Your task to perform on an android device: toggle show notifications on the lock screen Image 0: 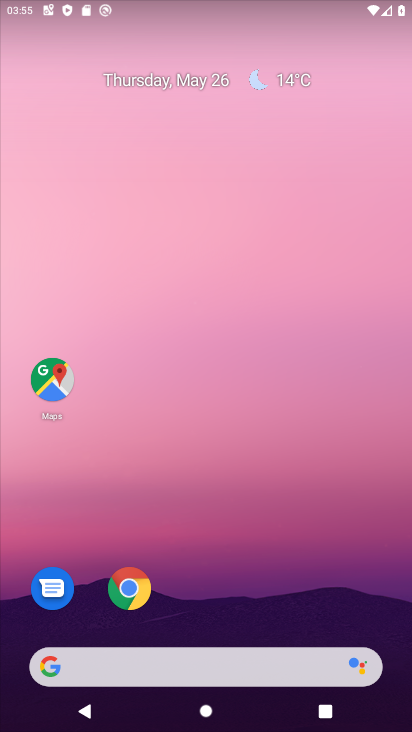
Step 0: drag from (270, 582) to (275, 164)
Your task to perform on an android device: toggle show notifications on the lock screen Image 1: 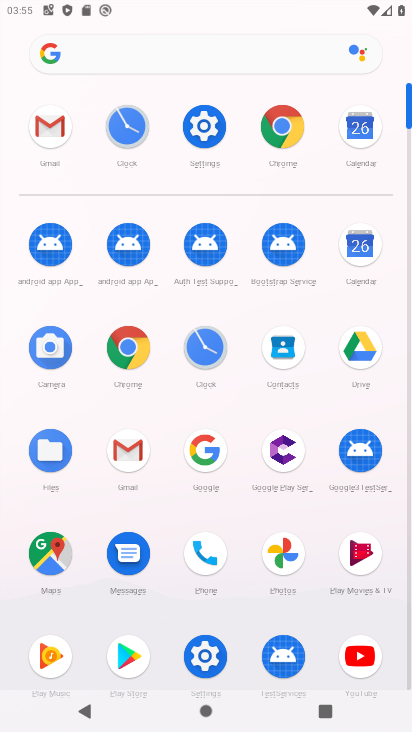
Step 1: click (203, 140)
Your task to perform on an android device: toggle show notifications on the lock screen Image 2: 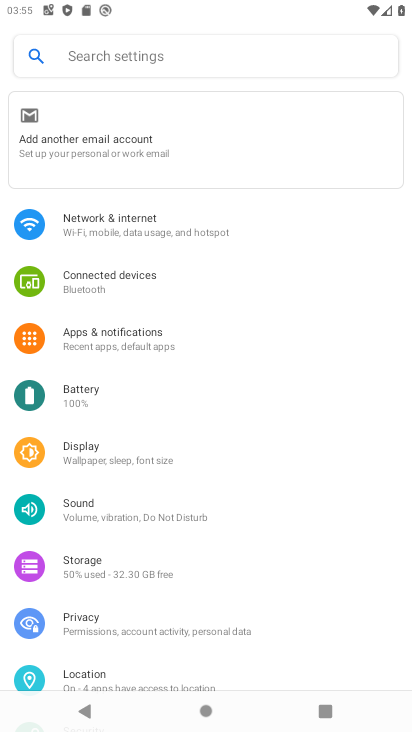
Step 2: drag from (131, 579) to (154, 434)
Your task to perform on an android device: toggle show notifications on the lock screen Image 3: 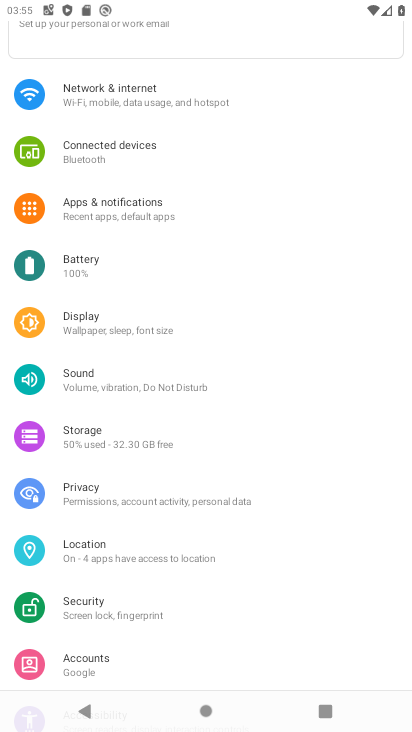
Step 3: drag from (198, 658) to (198, 554)
Your task to perform on an android device: toggle show notifications on the lock screen Image 4: 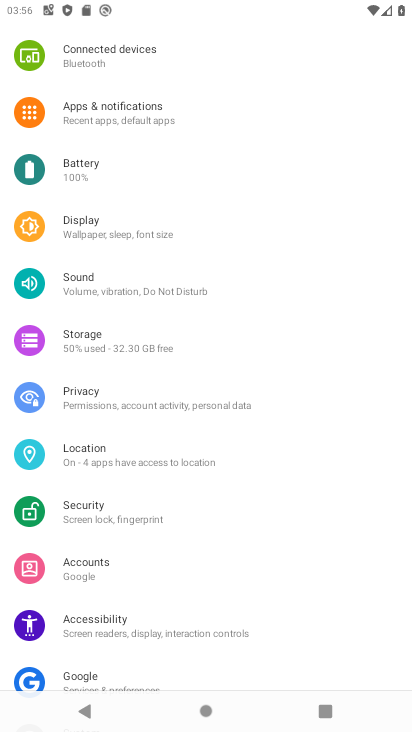
Step 4: click (162, 129)
Your task to perform on an android device: toggle show notifications on the lock screen Image 5: 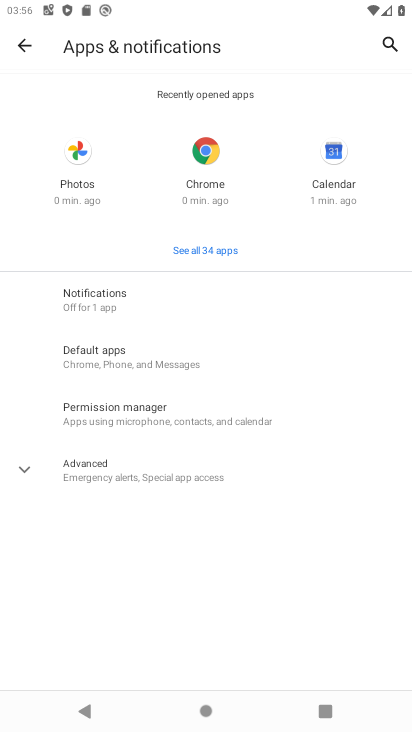
Step 5: drag from (123, 469) to (127, 359)
Your task to perform on an android device: toggle show notifications on the lock screen Image 6: 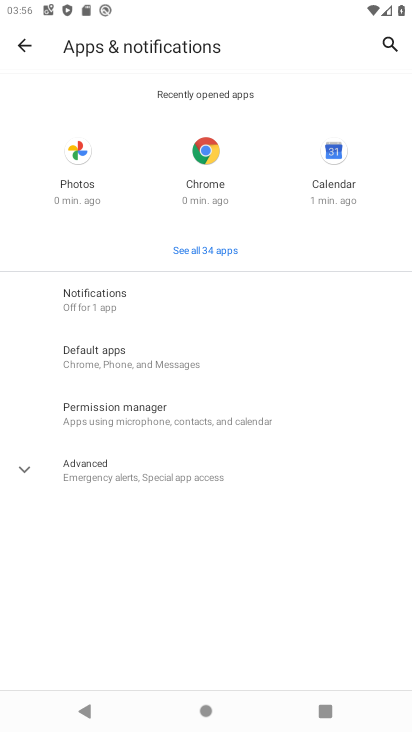
Step 6: click (124, 288)
Your task to perform on an android device: toggle show notifications on the lock screen Image 7: 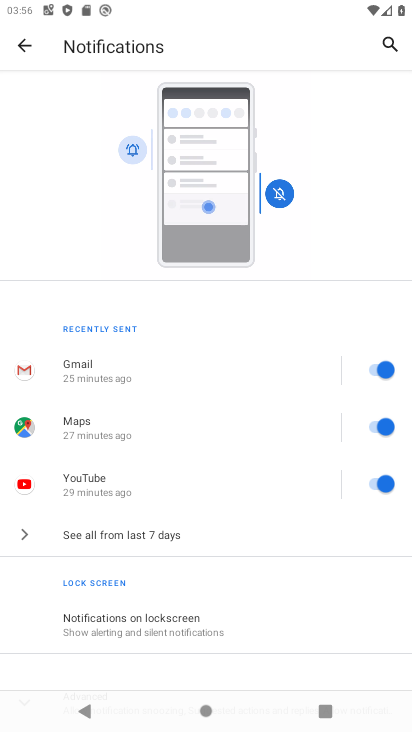
Step 7: click (143, 603)
Your task to perform on an android device: toggle show notifications on the lock screen Image 8: 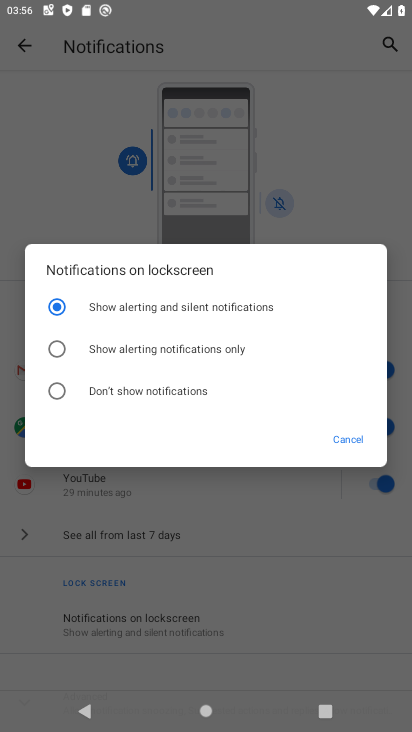
Step 8: click (224, 306)
Your task to perform on an android device: toggle show notifications on the lock screen Image 9: 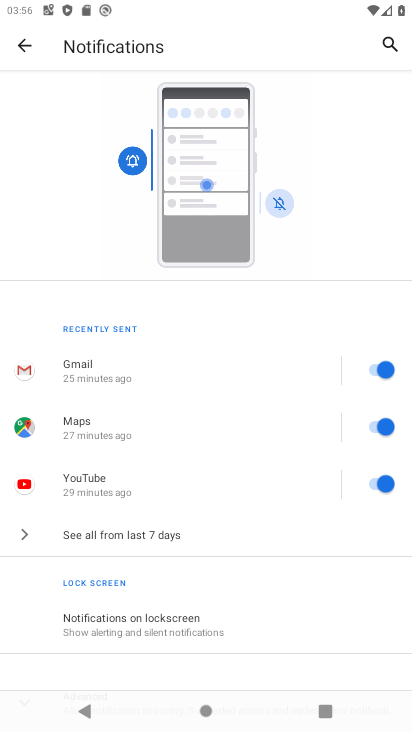
Step 9: task complete